Your task to perform on an android device: Go to ESPN.com Image 0: 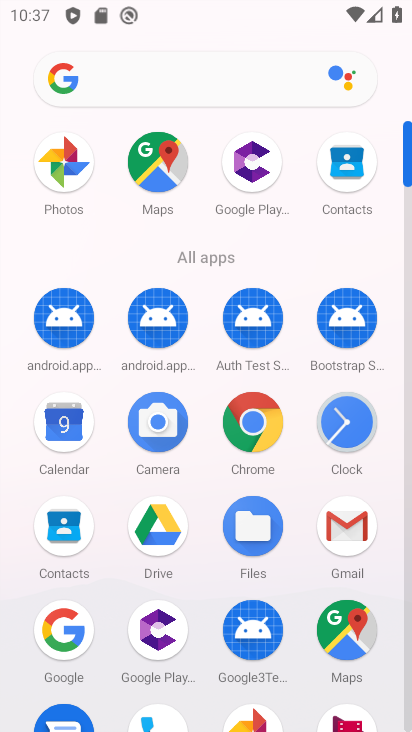
Step 0: press home button
Your task to perform on an android device: Go to ESPN.com Image 1: 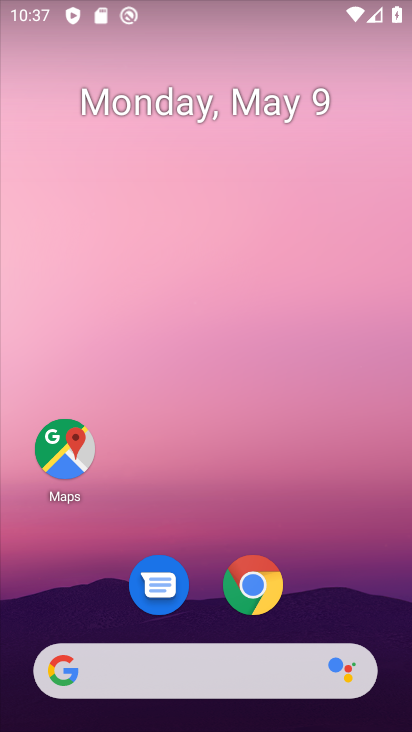
Step 1: click (214, 676)
Your task to perform on an android device: Go to ESPN.com Image 2: 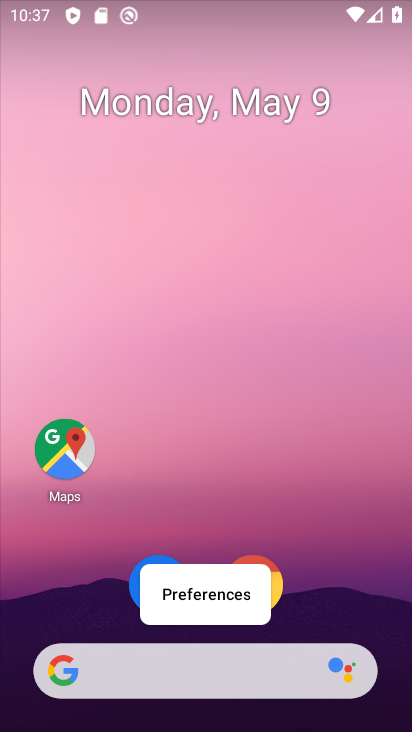
Step 2: click (214, 678)
Your task to perform on an android device: Go to ESPN.com Image 3: 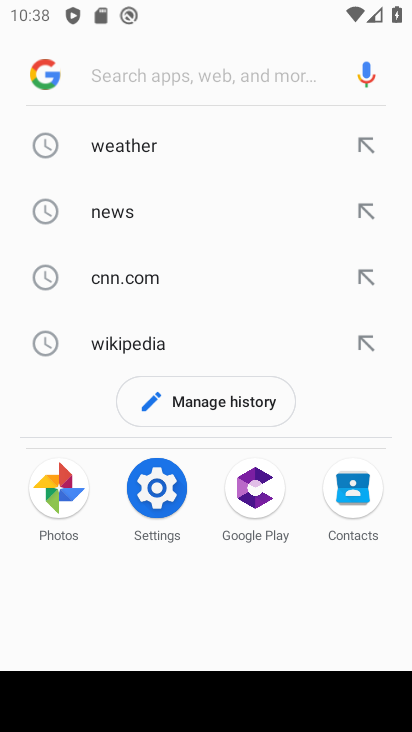
Step 3: type "espn.con"
Your task to perform on an android device: Go to ESPN.com Image 4: 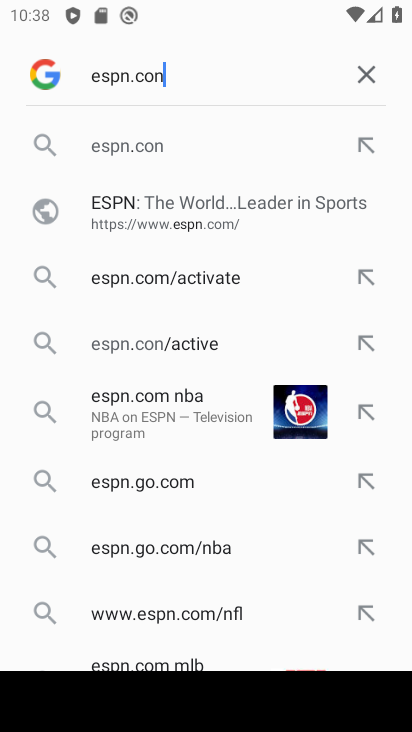
Step 4: click (66, 203)
Your task to perform on an android device: Go to ESPN.com Image 5: 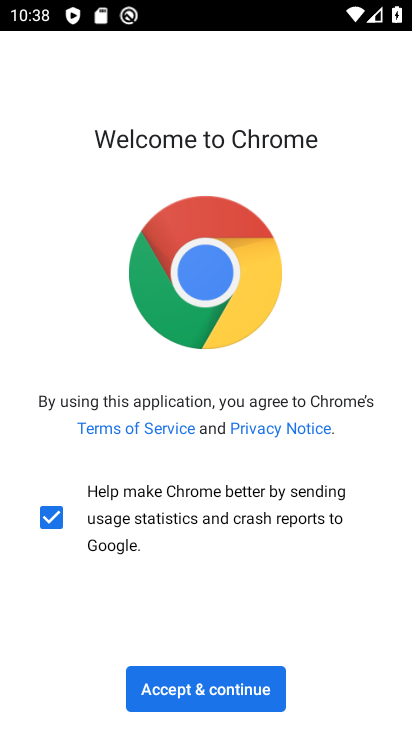
Step 5: click (230, 693)
Your task to perform on an android device: Go to ESPN.com Image 6: 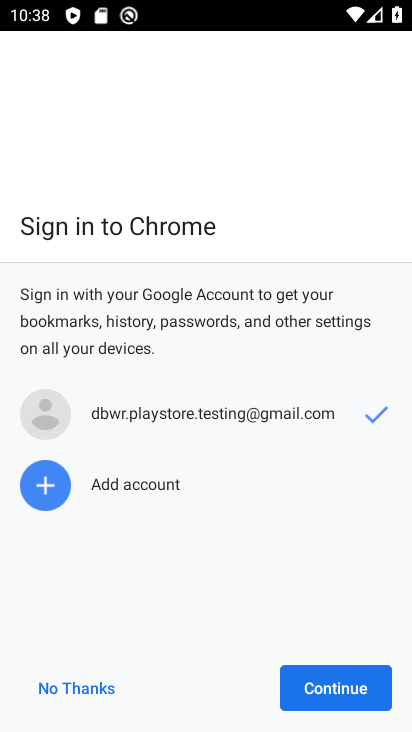
Step 6: click (320, 686)
Your task to perform on an android device: Go to ESPN.com Image 7: 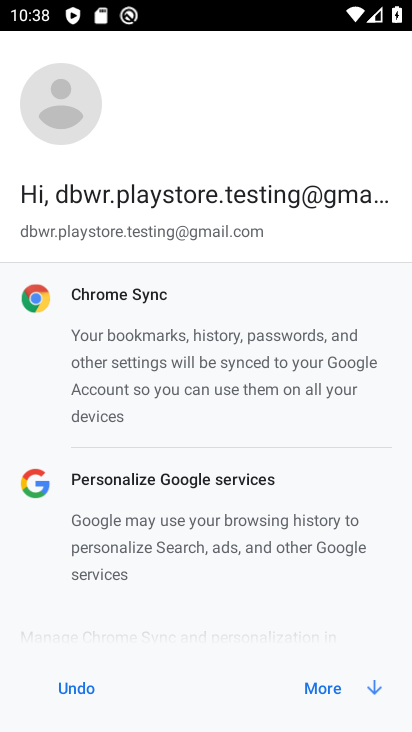
Step 7: press home button
Your task to perform on an android device: Go to ESPN.com Image 8: 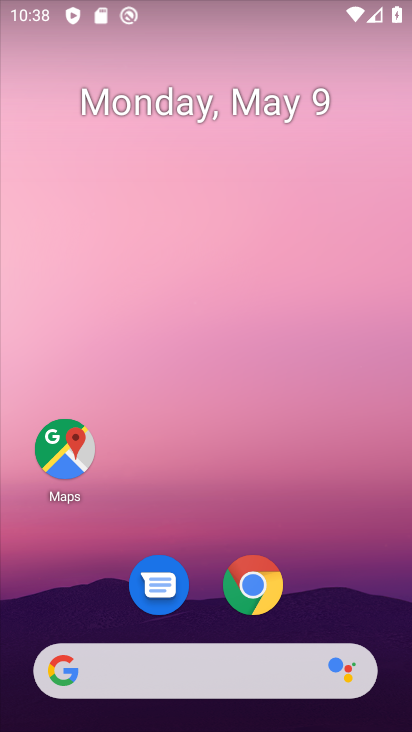
Step 8: click (229, 677)
Your task to perform on an android device: Go to ESPN.com Image 9: 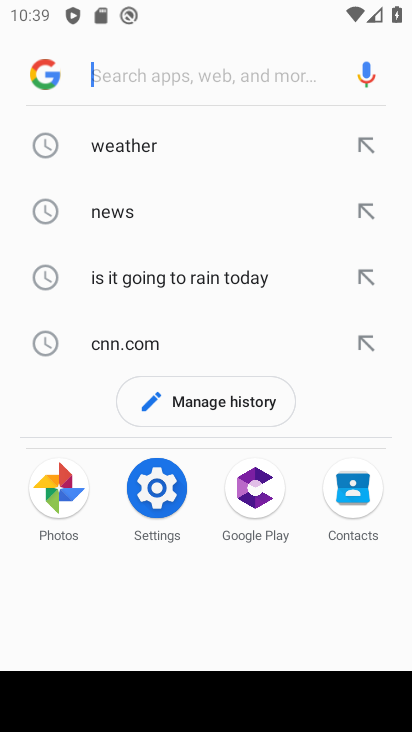
Step 9: type "espn.con"
Your task to perform on an android device: Go to ESPN.com Image 10: 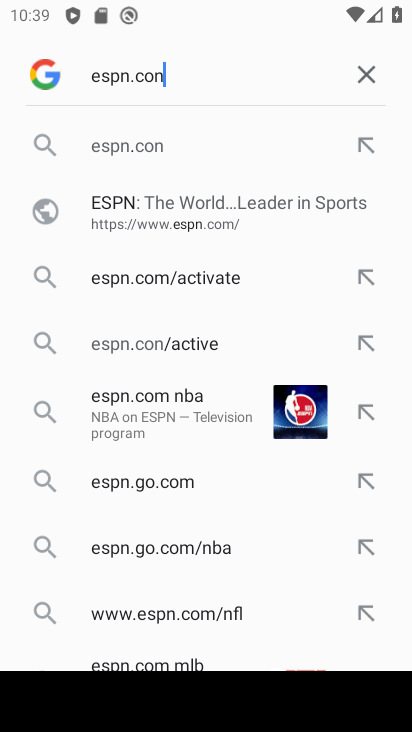
Step 10: click (99, 196)
Your task to perform on an android device: Go to ESPN.com Image 11: 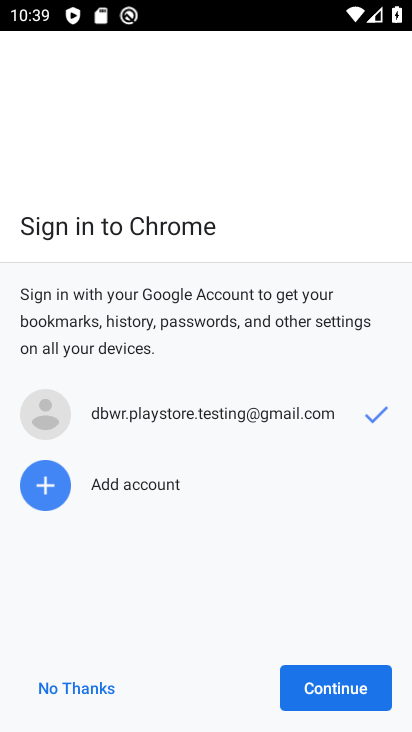
Step 11: click (340, 683)
Your task to perform on an android device: Go to ESPN.com Image 12: 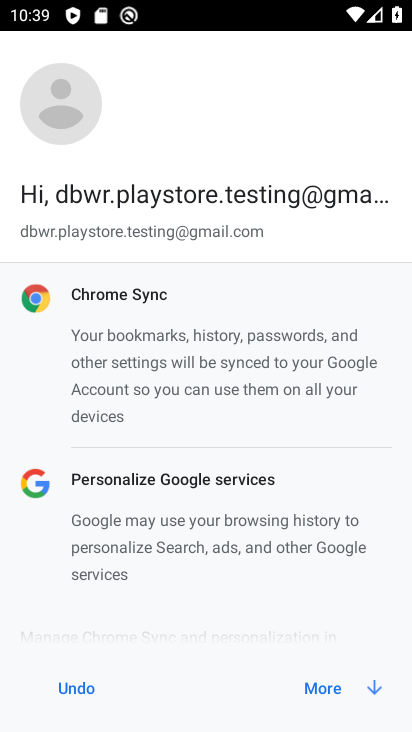
Step 12: click (340, 683)
Your task to perform on an android device: Go to ESPN.com Image 13: 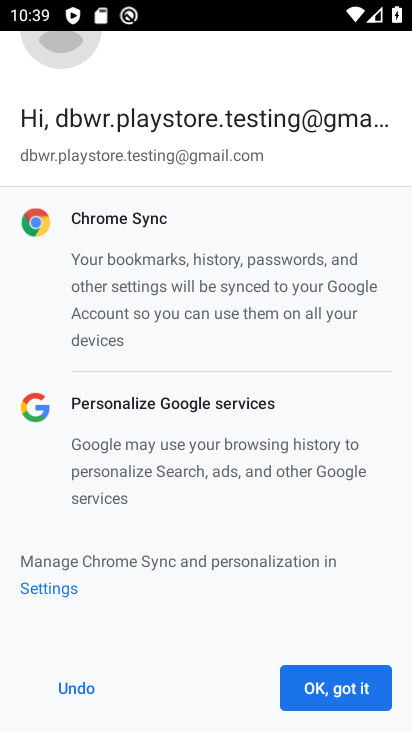
Step 13: click (340, 683)
Your task to perform on an android device: Go to ESPN.com Image 14: 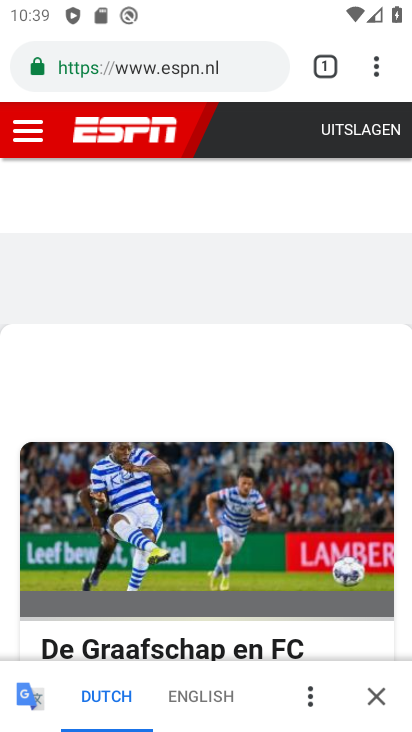
Step 14: task complete